Your task to perform on an android device: turn off sleep mode Image 0: 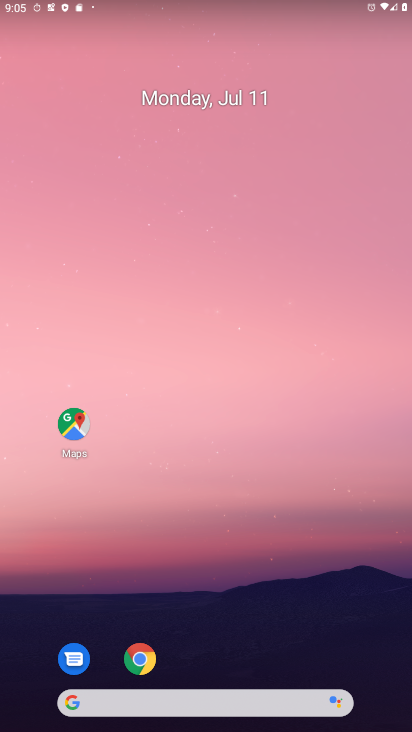
Step 0: drag from (188, 636) to (287, 60)
Your task to perform on an android device: turn off sleep mode Image 1: 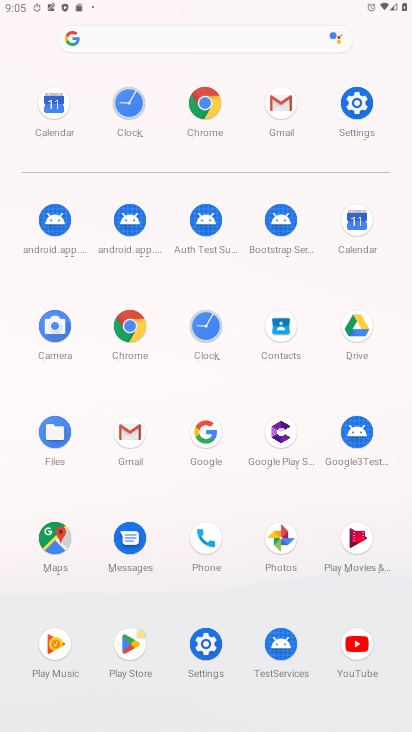
Step 1: click (361, 100)
Your task to perform on an android device: turn off sleep mode Image 2: 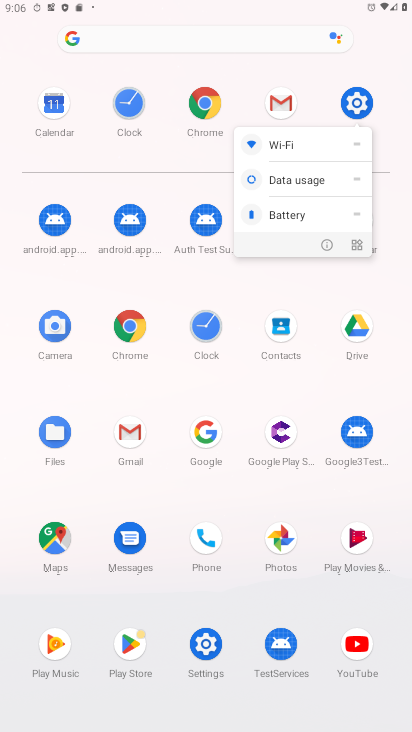
Step 2: click (326, 241)
Your task to perform on an android device: turn off sleep mode Image 3: 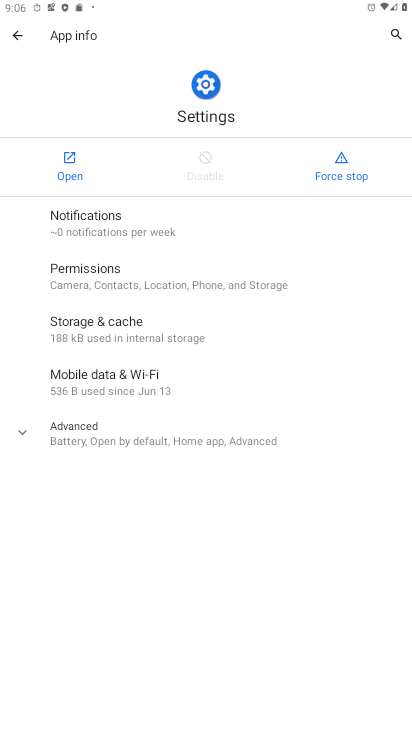
Step 3: click (65, 152)
Your task to perform on an android device: turn off sleep mode Image 4: 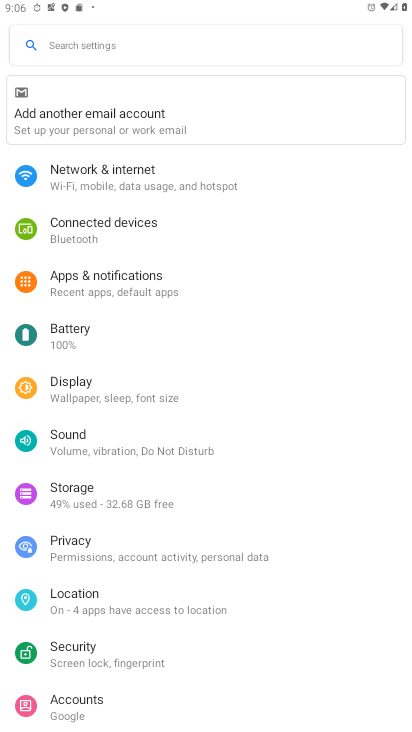
Step 4: click (97, 382)
Your task to perform on an android device: turn off sleep mode Image 5: 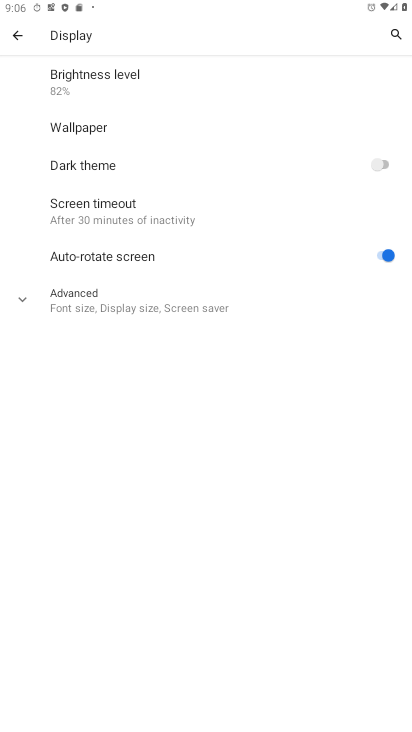
Step 5: drag from (201, 445) to (273, 232)
Your task to perform on an android device: turn off sleep mode Image 6: 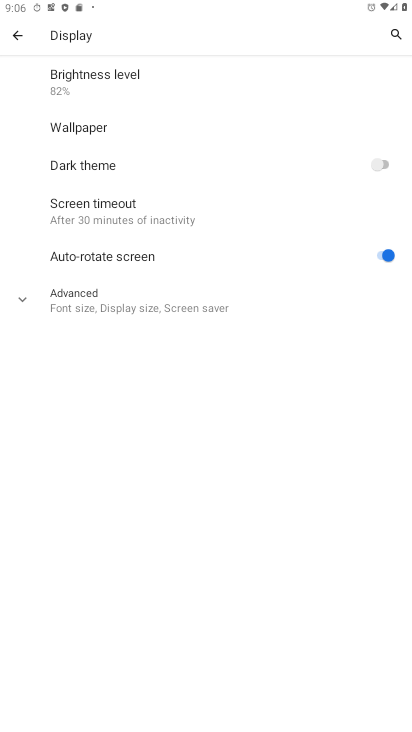
Step 6: click (126, 319)
Your task to perform on an android device: turn off sleep mode Image 7: 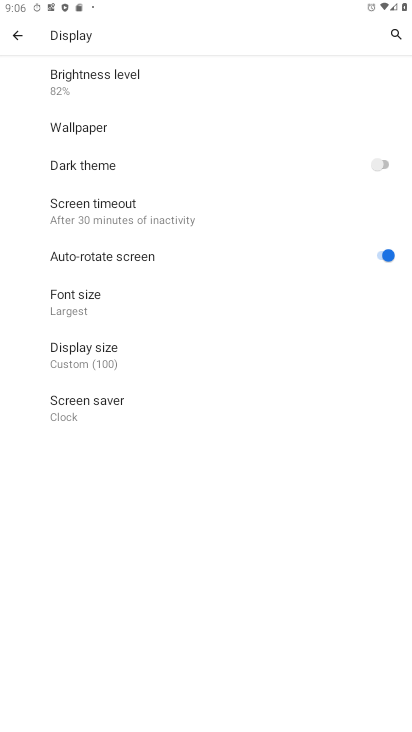
Step 7: click (106, 204)
Your task to perform on an android device: turn off sleep mode Image 8: 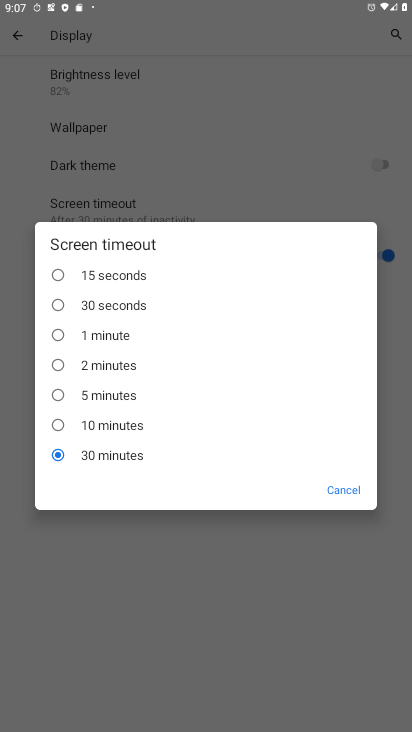
Step 8: click (93, 270)
Your task to perform on an android device: turn off sleep mode Image 9: 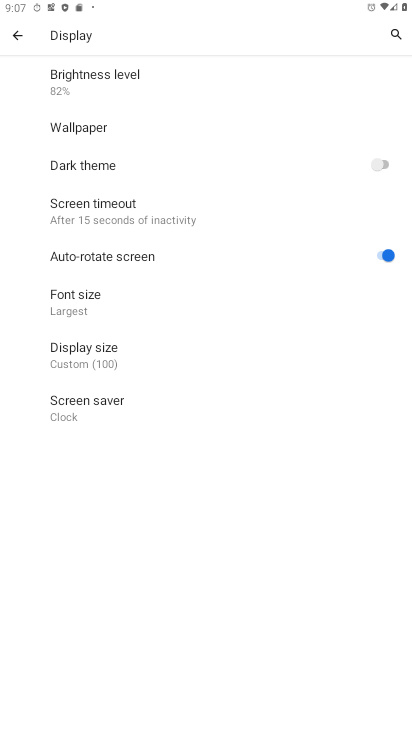
Step 9: task complete